Your task to perform on an android device: Go to CNN.com Image 0: 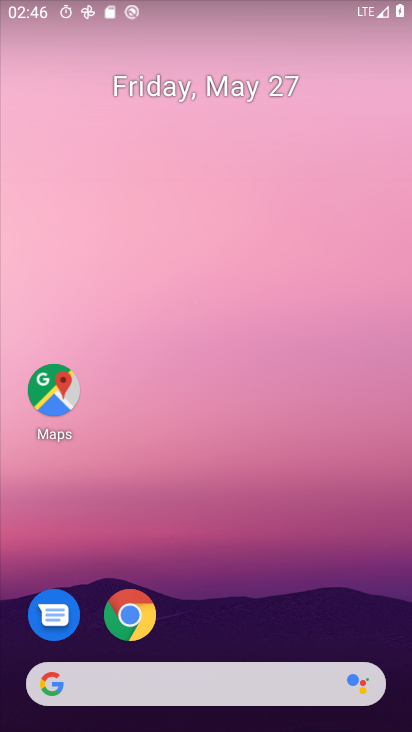
Step 0: drag from (353, 587) to (328, 138)
Your task to perform on an android device: Go to CNN.com Image 1: 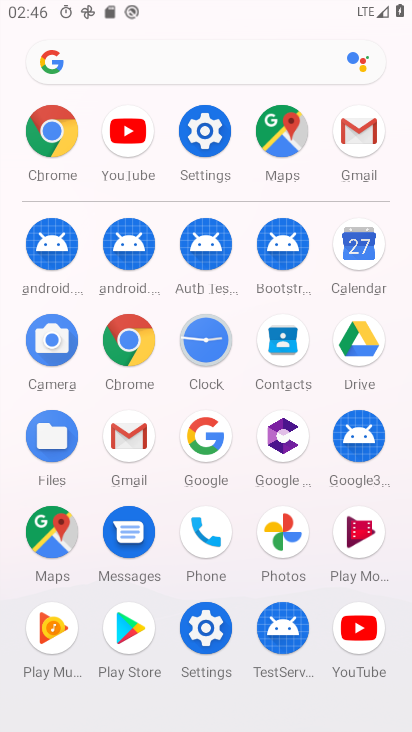
Step 1: click (145, 350)
Your task to perform on an android device: Go to CNN.com Image 2: 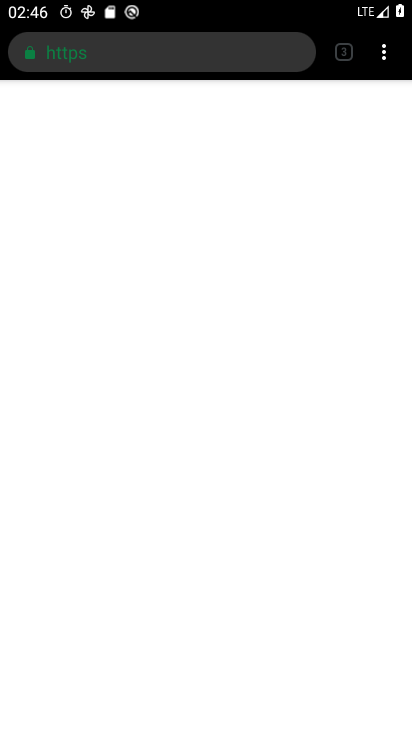
Step 2: click (239, 53)
Your task to perform on an android device: Go to CNN.com Image 3: 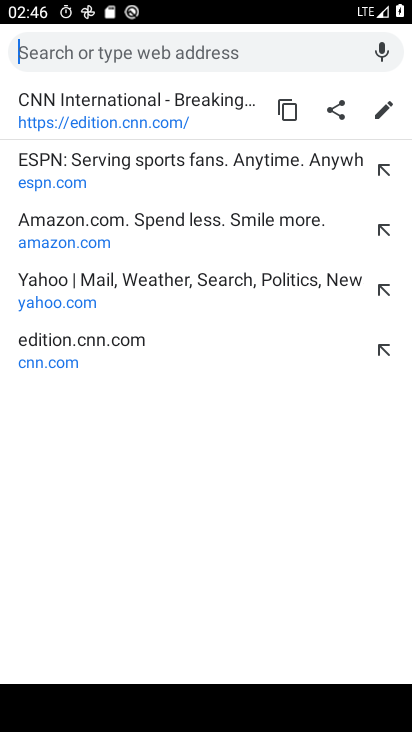
Step 3: type "cnn.com"
Your task to perform on an android device: Go to CNN.com Image 4: 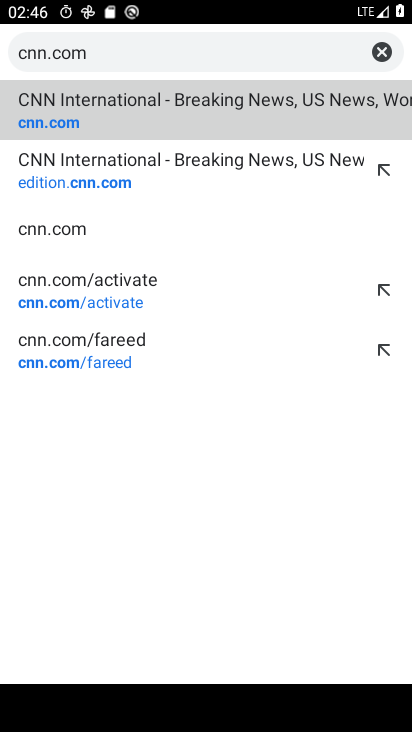
Step 4: click (235, 107)
Your task to perform on an android device: Go to CNN.com Image 5: 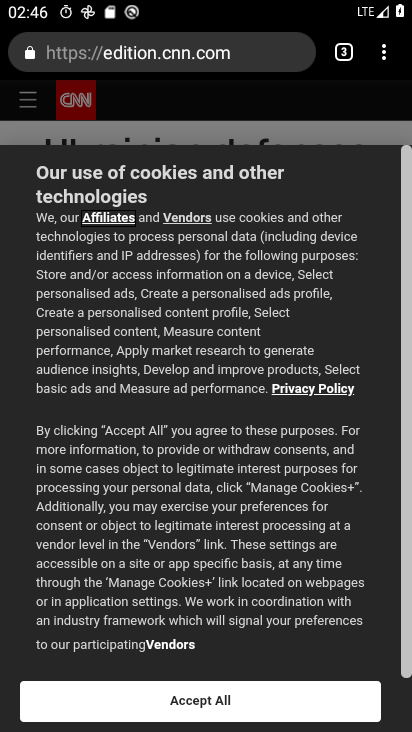
Step 5: task complete